Your task to perform on an android device: turn on priority inbox in the gmail app Image 0: 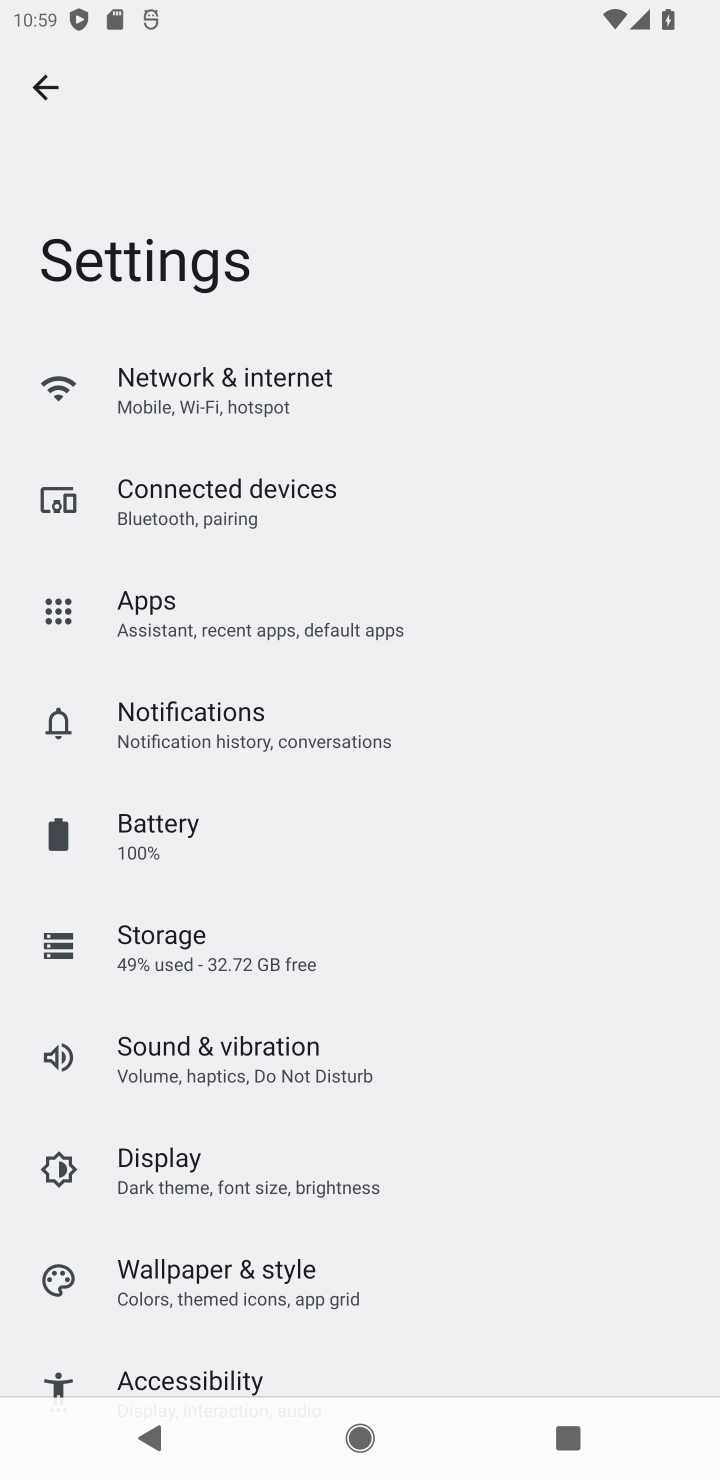
Step 0: press home button
Your task to perform on an android device: turn on priority inbox in the gmail app Image 1: 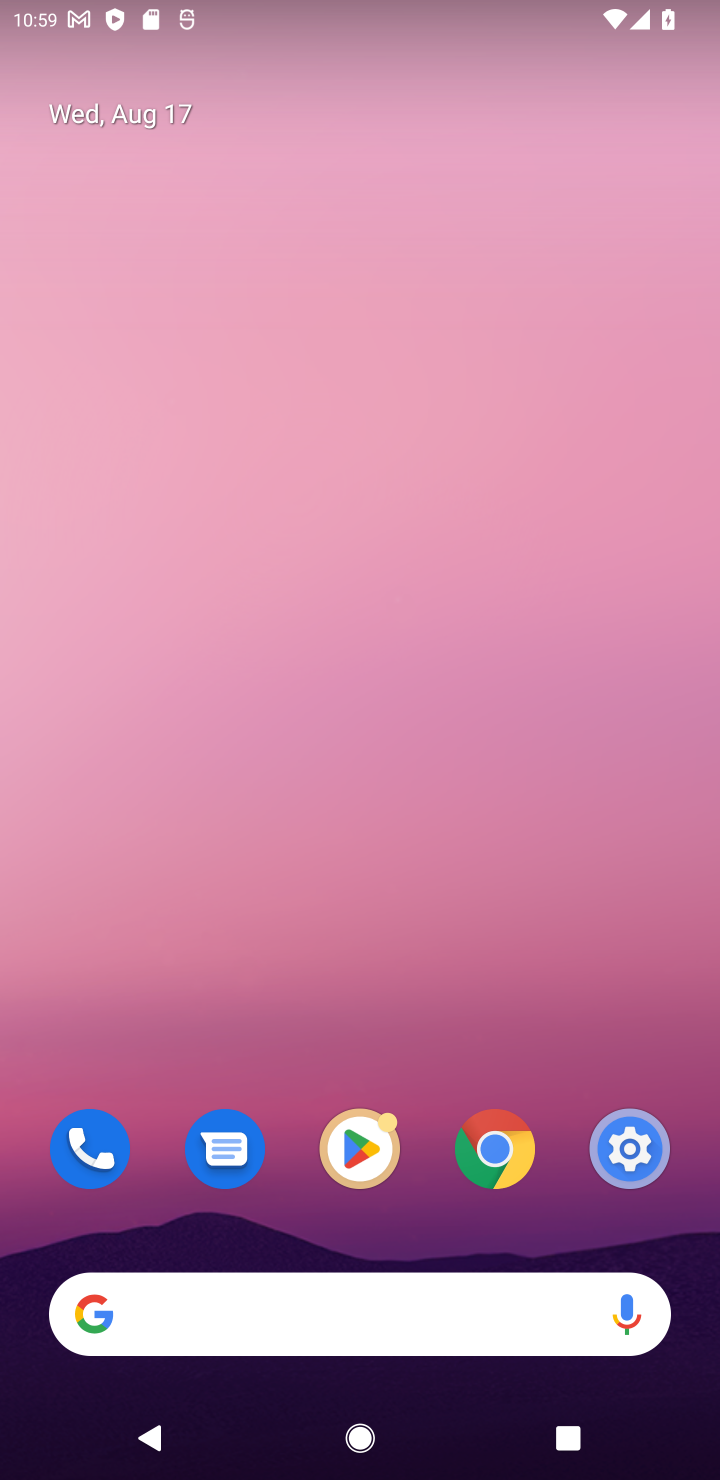
Step 1: drag from (128, 641) to (133, 59)
Your task to perform on an android device: turn on priority inbox in the gmail app Image 2: 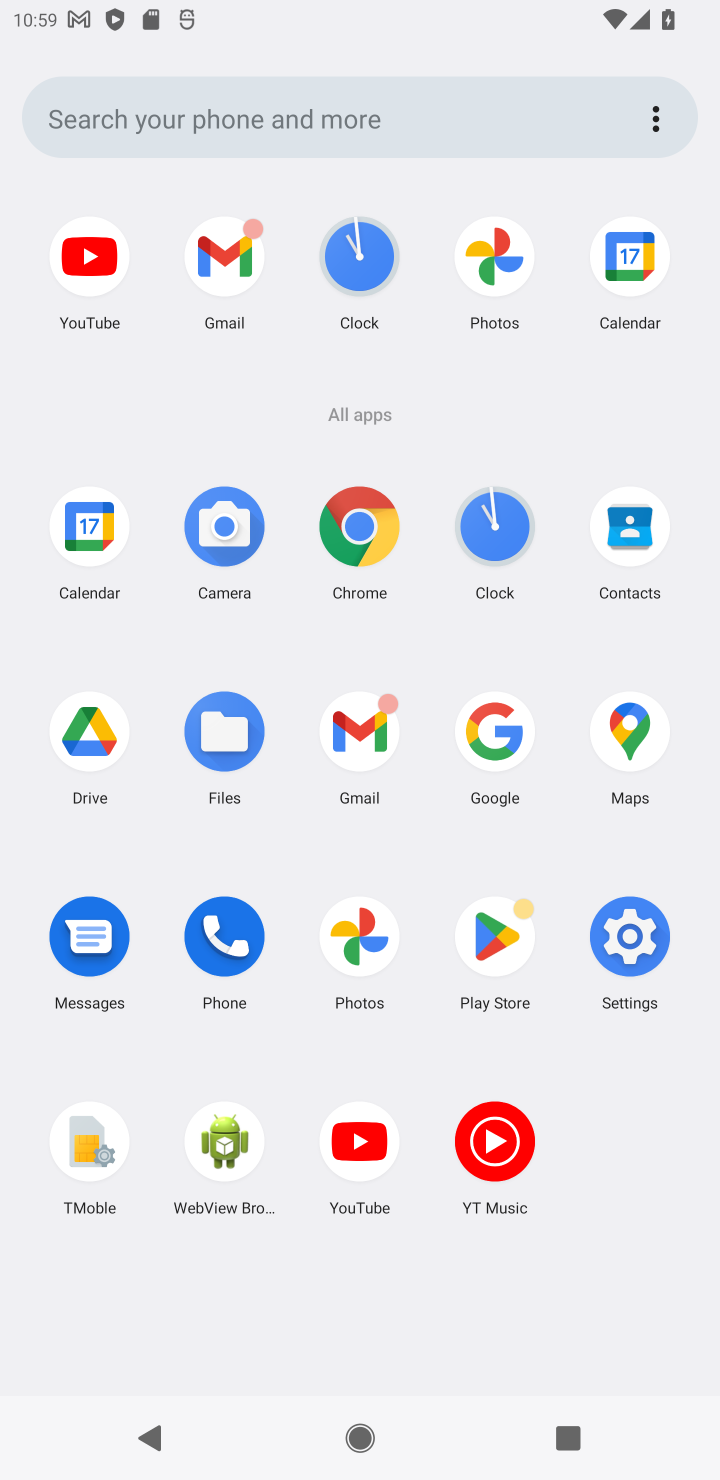
Step 2: click (204, 262)
Your task to perform on an android device: turn on priority inbox in the gmail app Image 3: 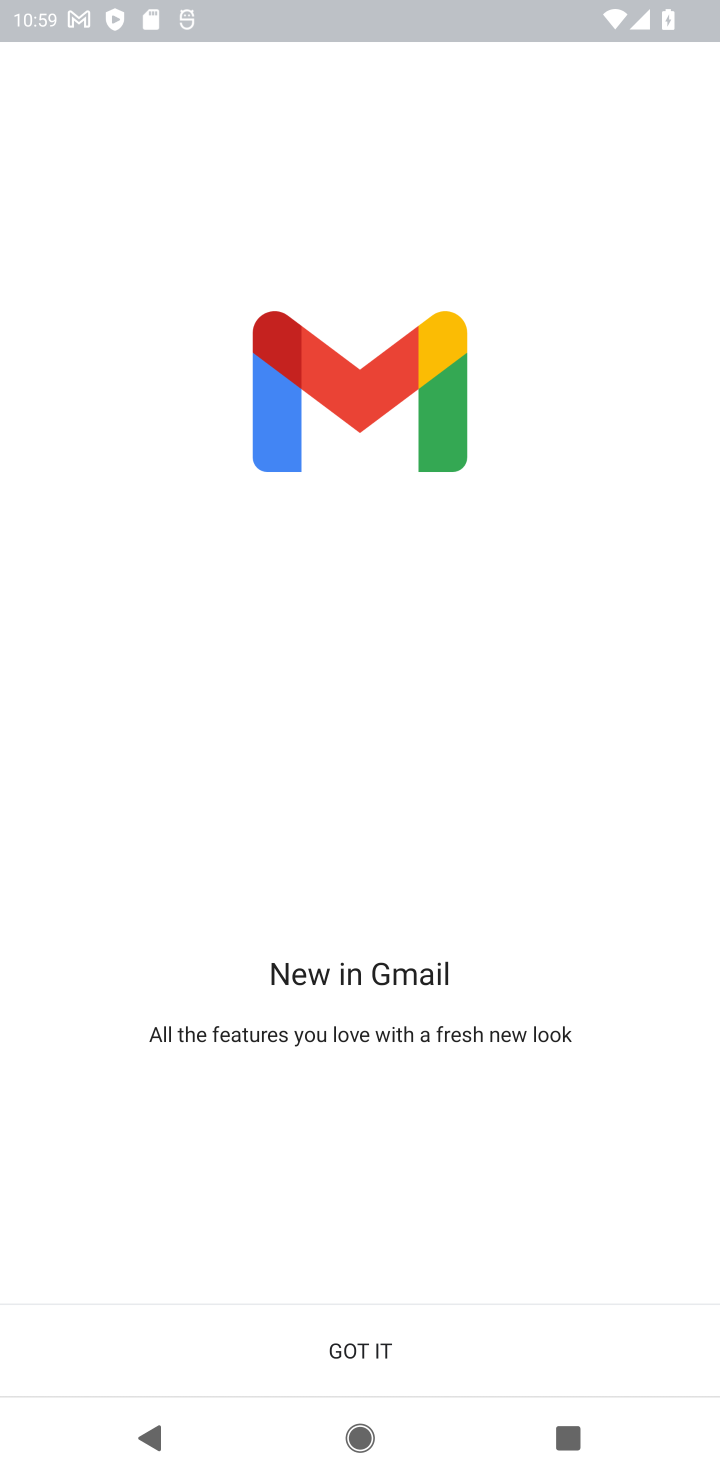
Step 3: click (368, 1351)
Your task to perform on an android device: turn on priority inbox in the gmail app Image 4: 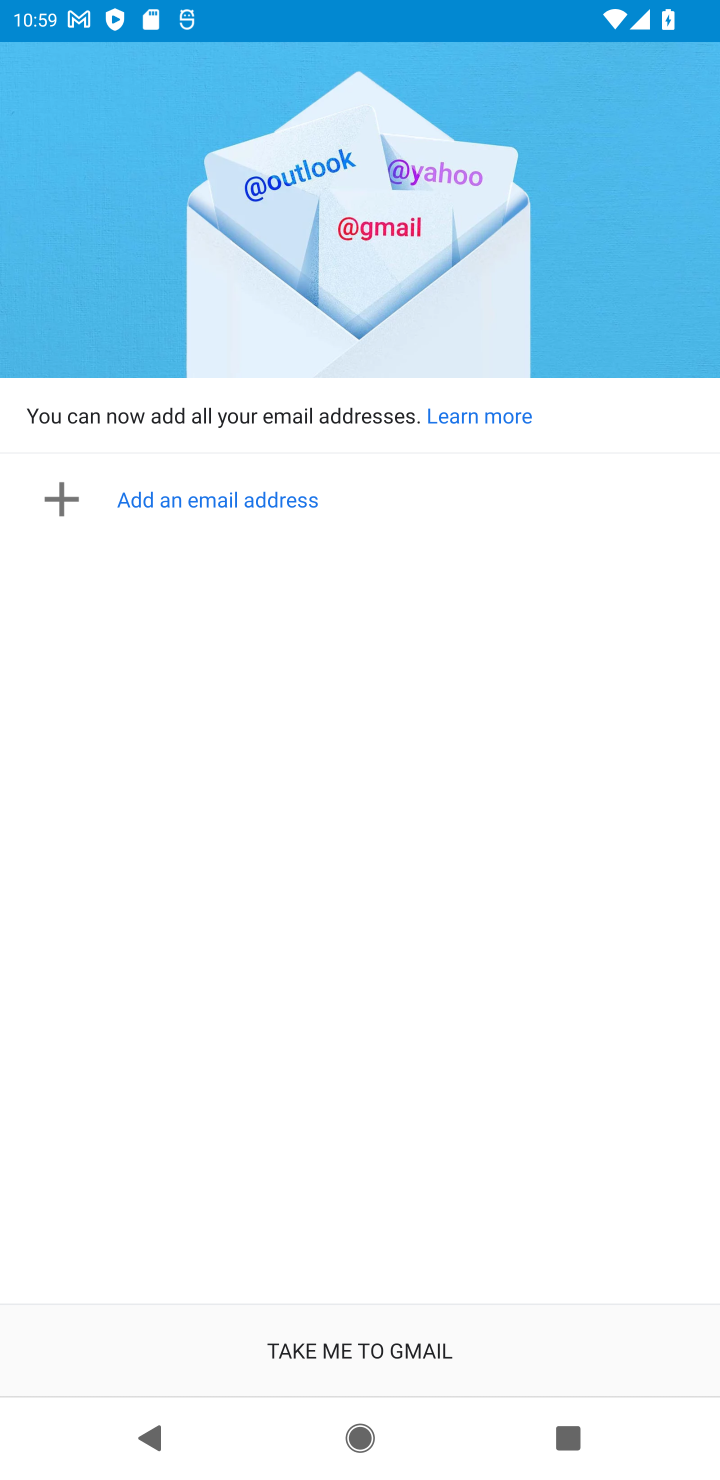
Step 4: click (368, 1351)
Your task to perform on an android device: turn on priority inbox in the gmail app Image 5: 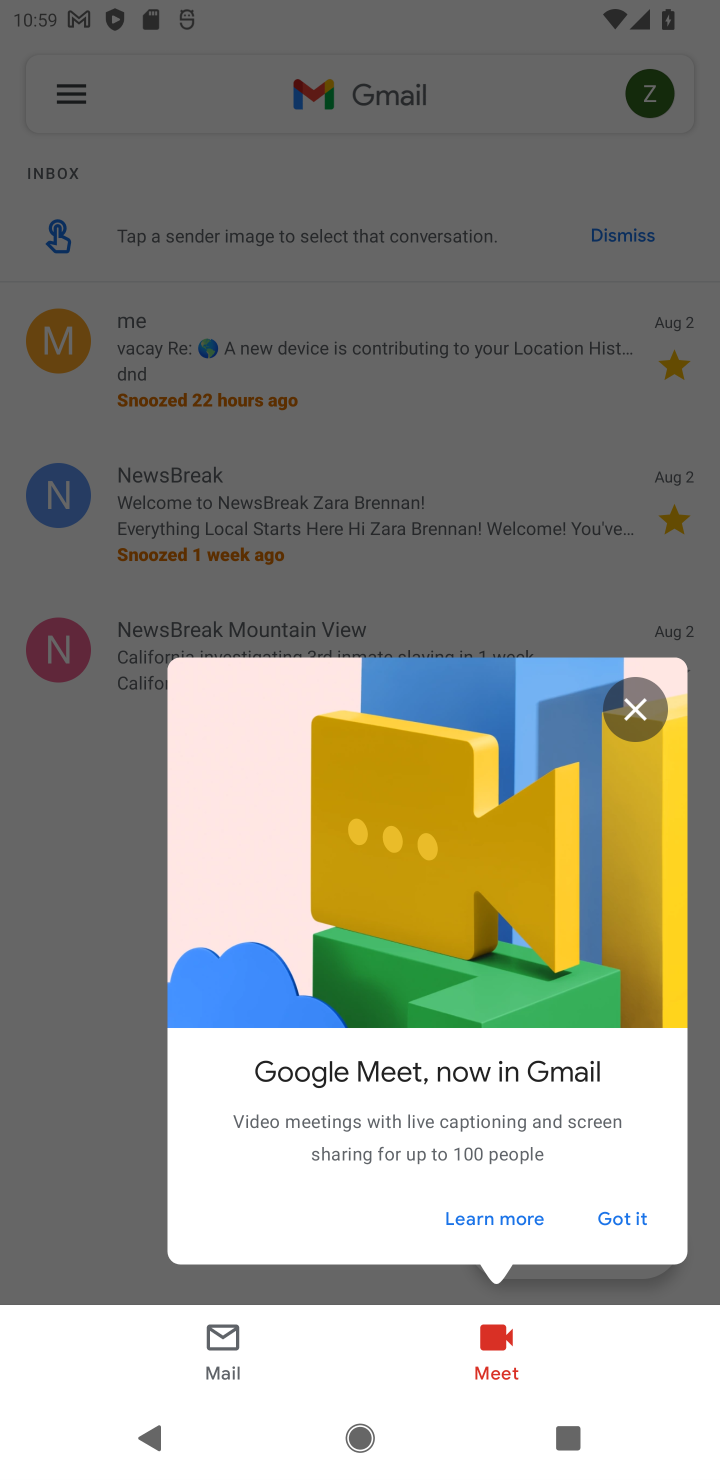
Step 5: click (629, 712)
Your task to perform on an android device: turn on priority inbox in the gmail app Image 6: 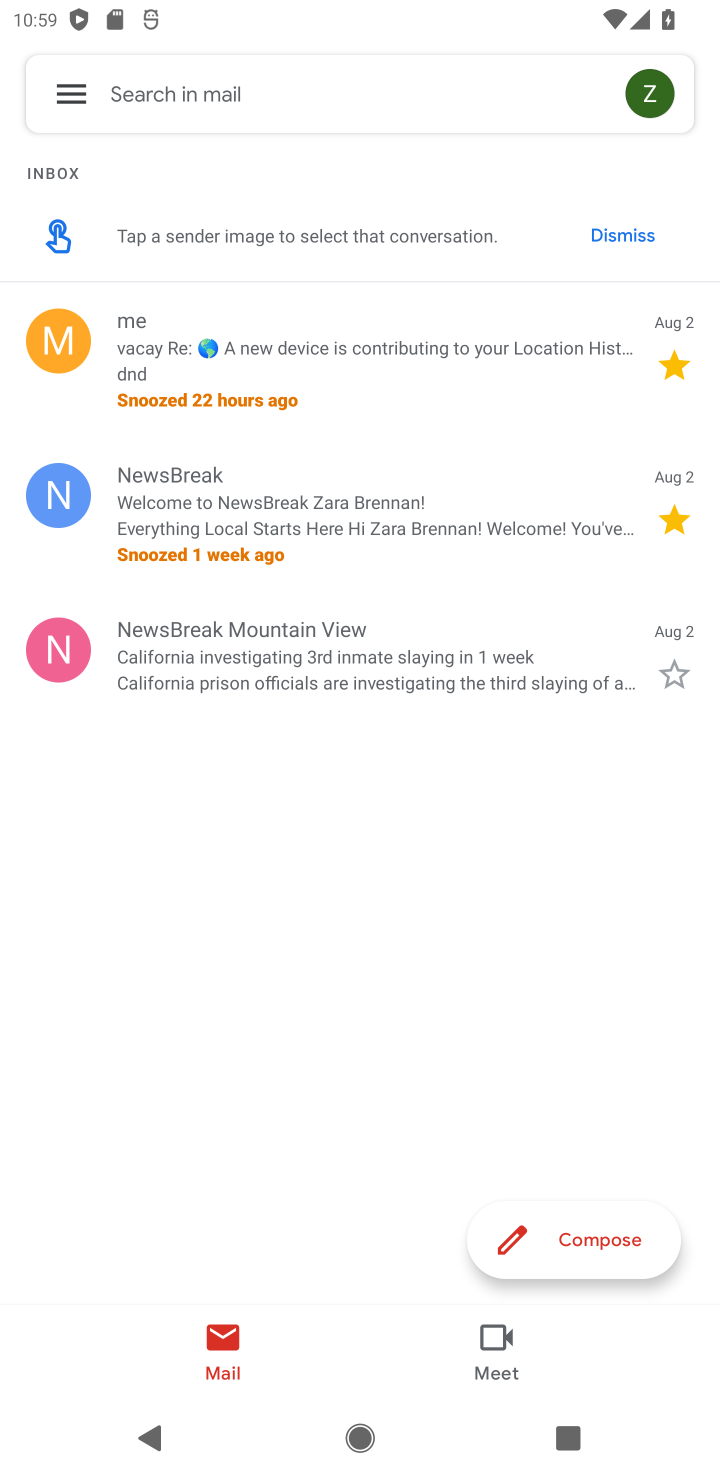
Step 6: click (92, 108)
Your task to perform on an android device: turn on priority inbox in the gmail app Image 7: 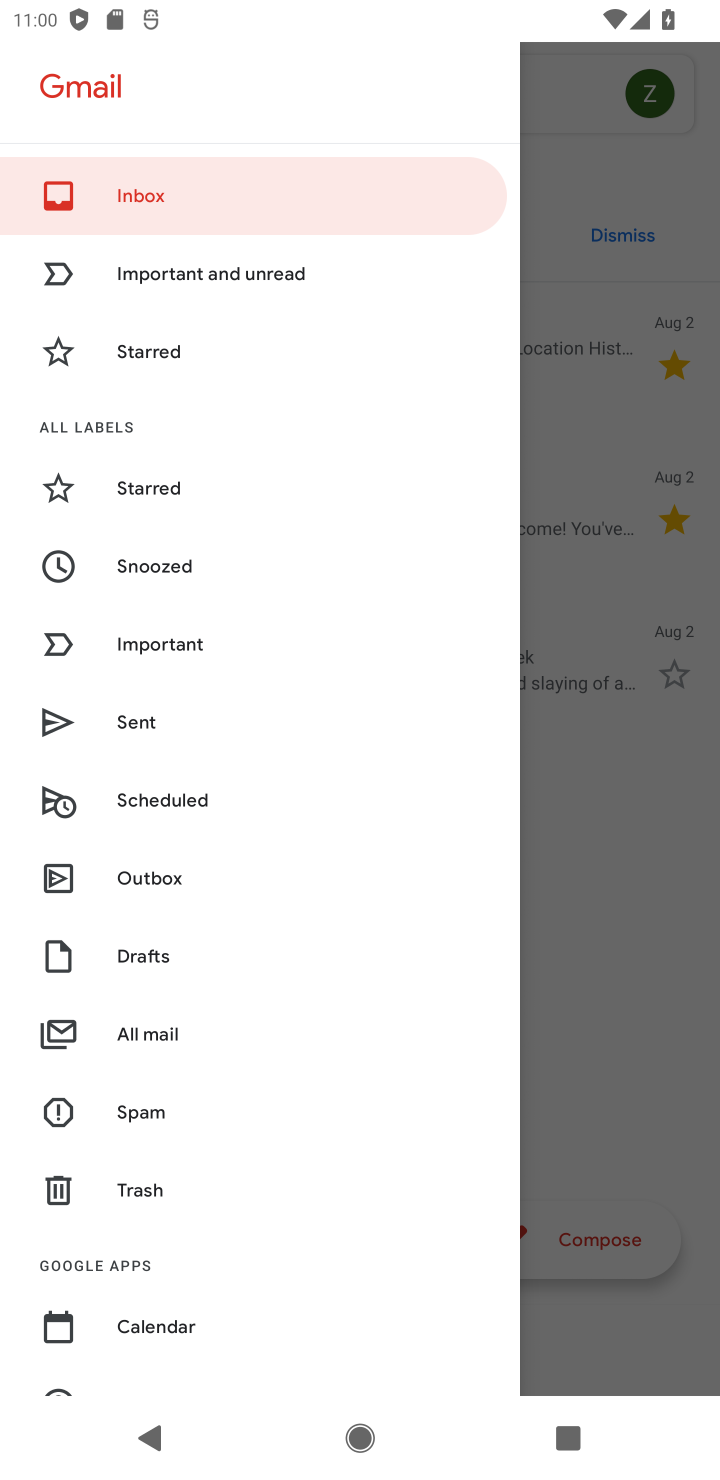
Step 7: drag from (207, 1291) to (63, 548)
Your task to perform on an android device: turn on priority inbox in the gmail app Image 8: 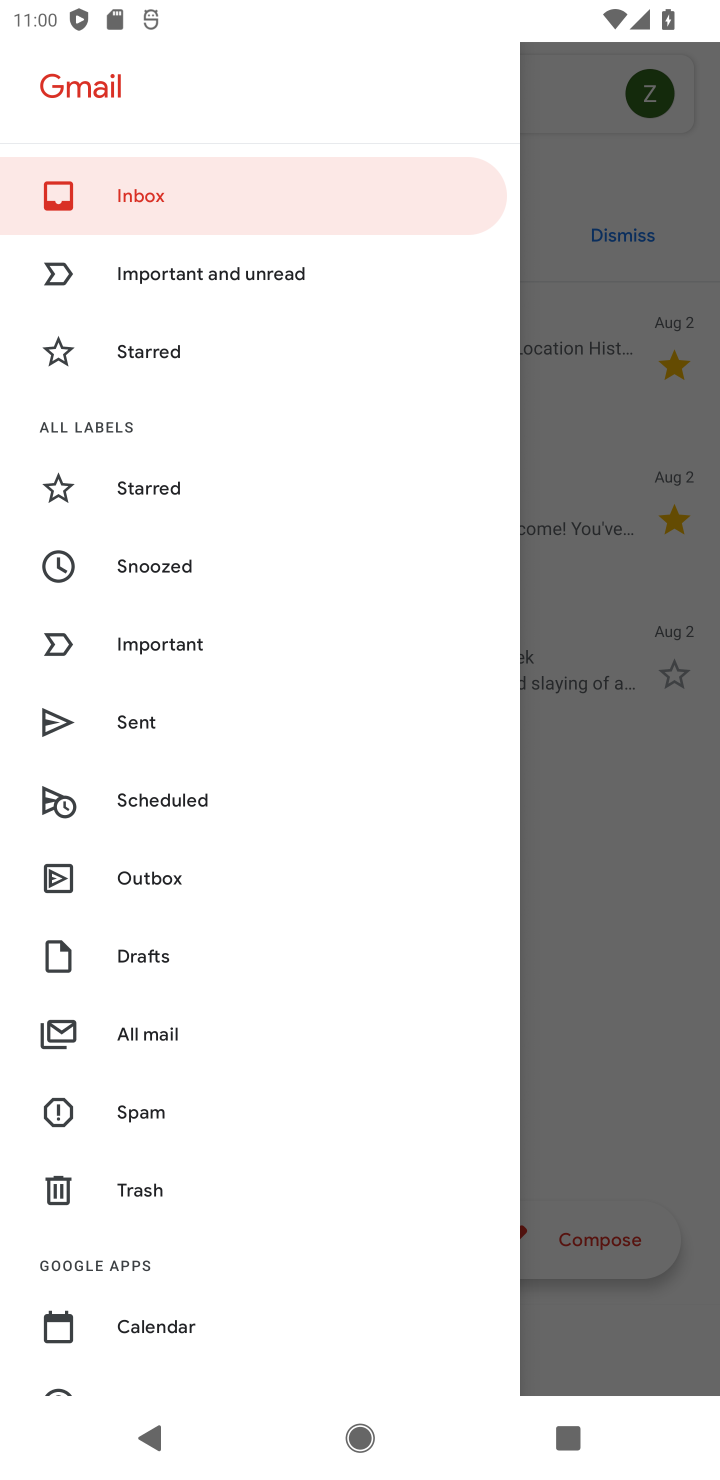
Step 8: drag from (251, 1102) to (428, 573)
Your task to perform on an android device: turn on priority inbox in the gmail app Image 9: 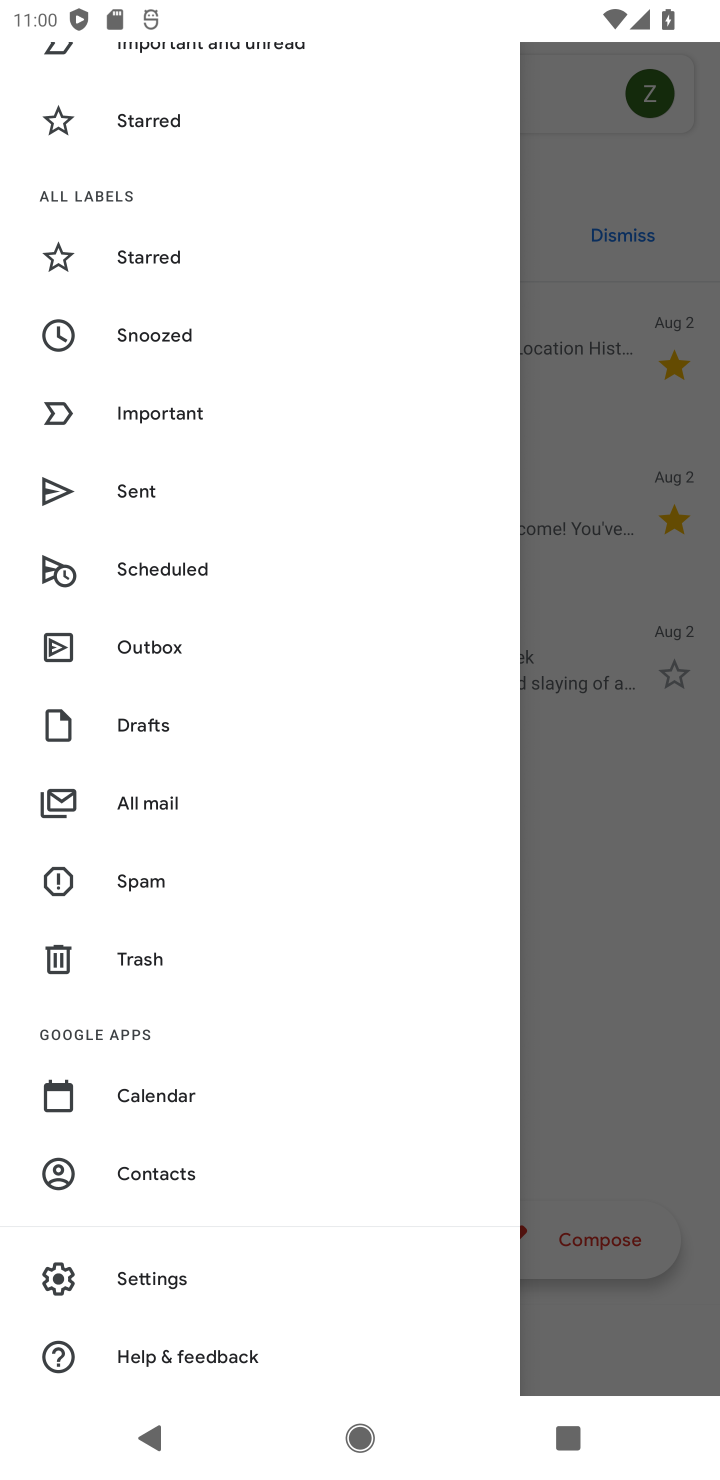
Step 9: click (167, 1285)
Your task to perform on an android device: turn on priority inbox in the gmail app Image 10: 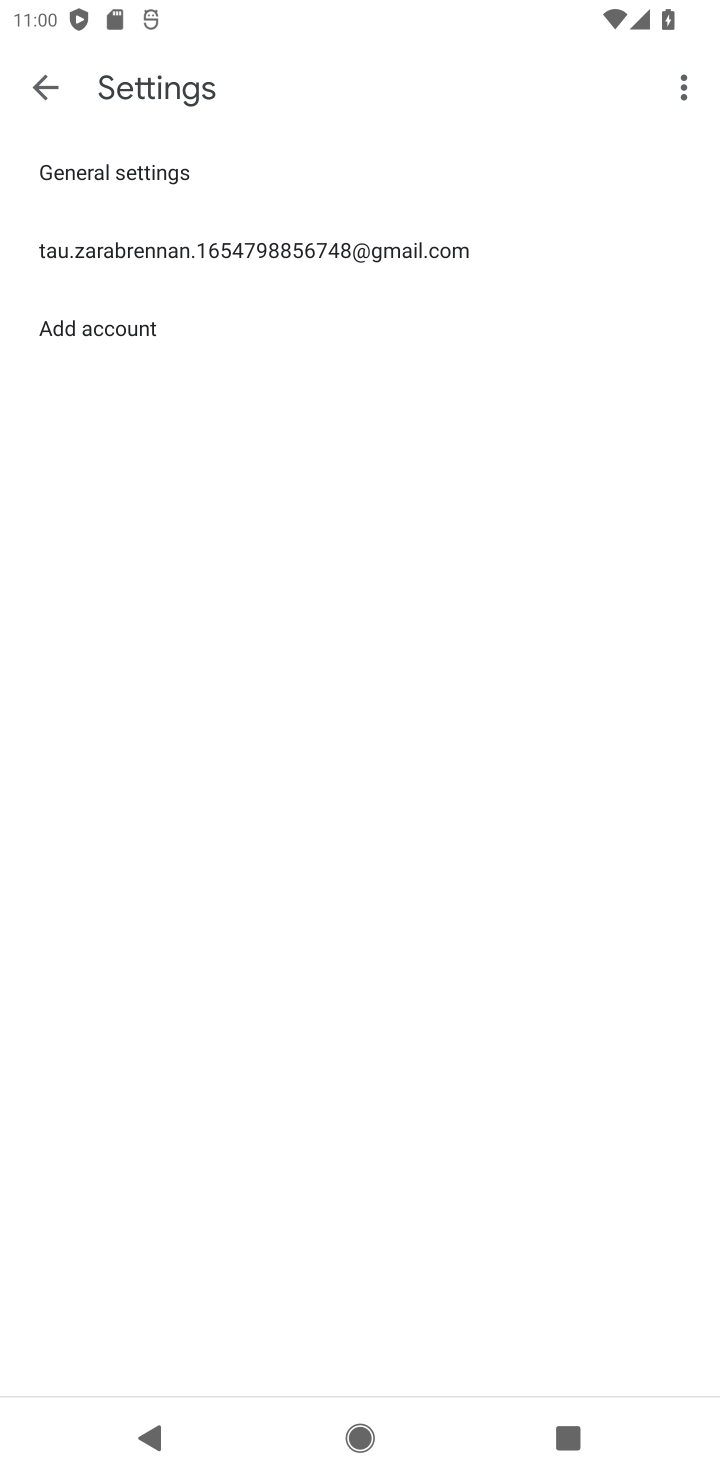
Step 10: click (116, 232)
Your task to perform on an android device: turn on priority inbox in the gmail app Image 11: 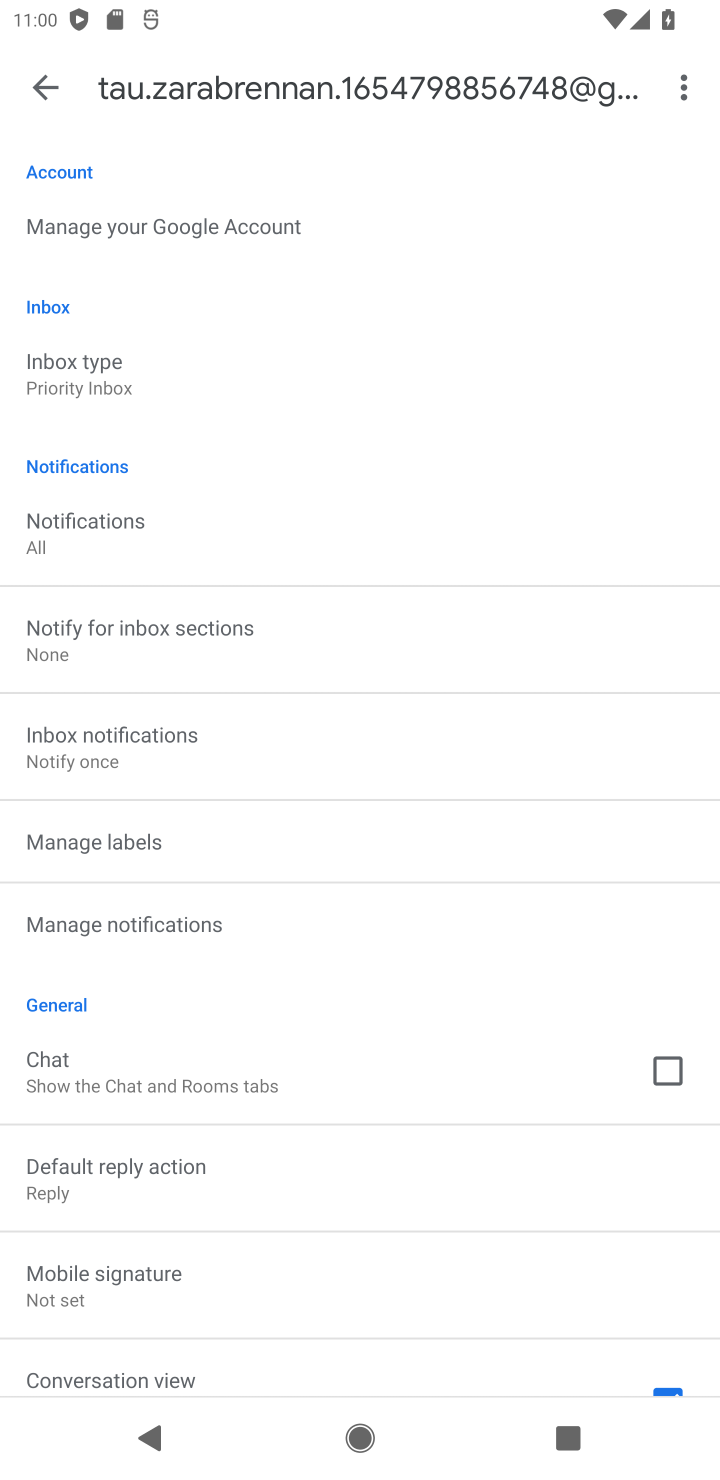
Step 11: task complete